Your task to perform on an android device: open chrome privacy settings Image 0: 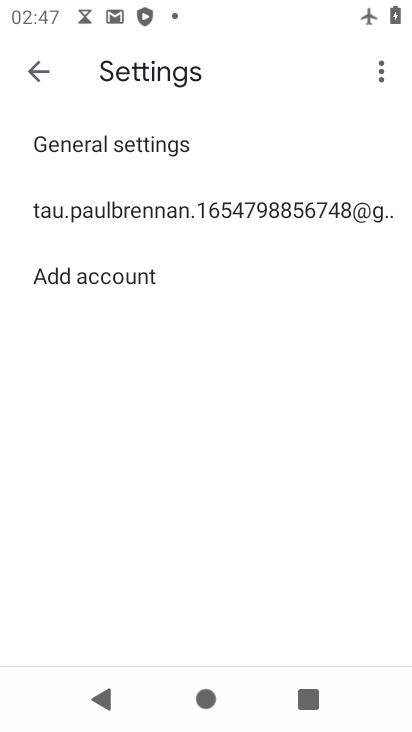
Step 0: press home button
Your task to perform on an android device: open chrome privacy settings Image 1: 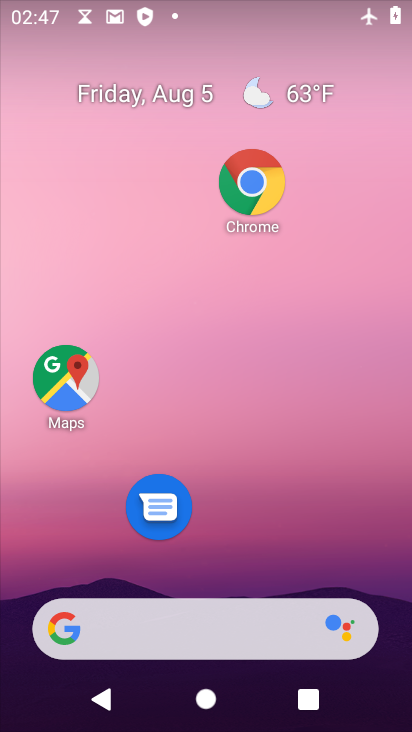
Step 1: drag from (202, 564) to (410, 52)
Your task to perform on an android device: open chrome privacy settings Image 2: 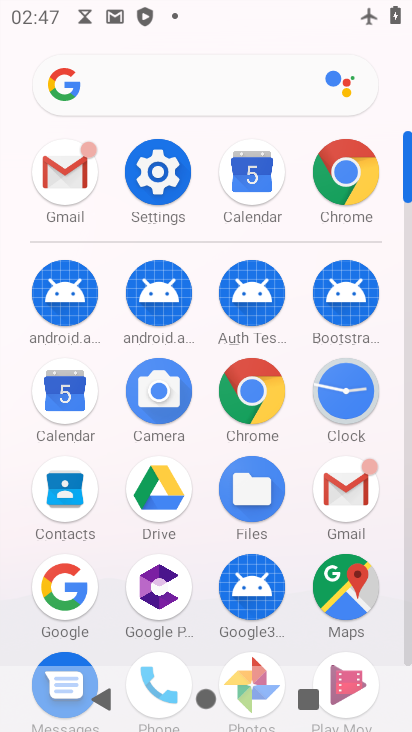
Step 2: click (345, 192)
Your task to perform on an android device: open chrome privacy settings Image 3: 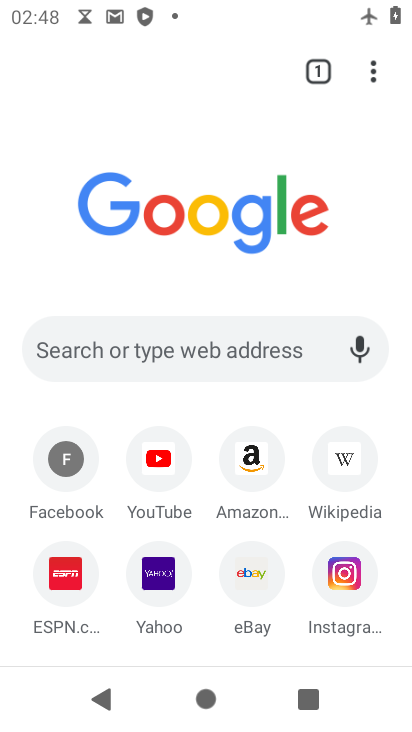
Step 3: click (368, 72)
Your task to perform on an android device: open chrome privacy settings Image 4: 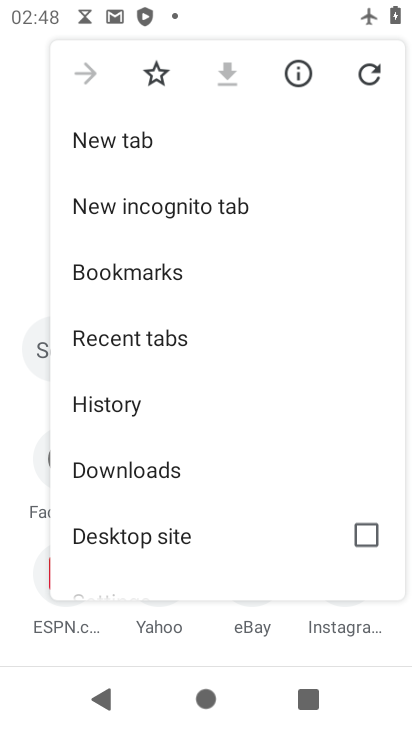
Step 4: drag from (151, 493) to (163, 273)
Your task to perform on an android device: open chrome privacy settings Image 5: 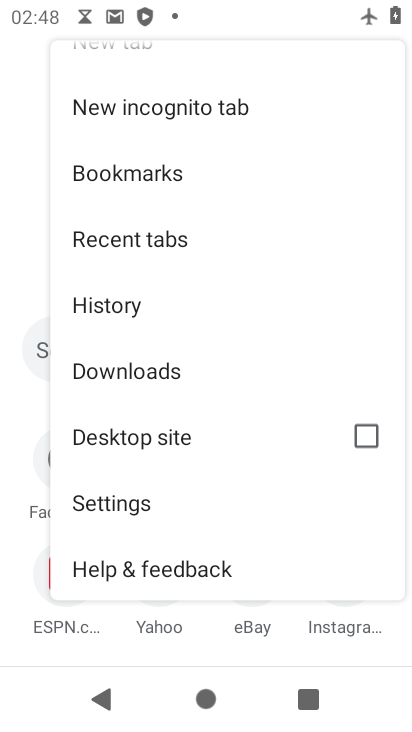
Step 5: click (112, 510)
Your task to perform on an android device: open chrome privacy settings Image 6: 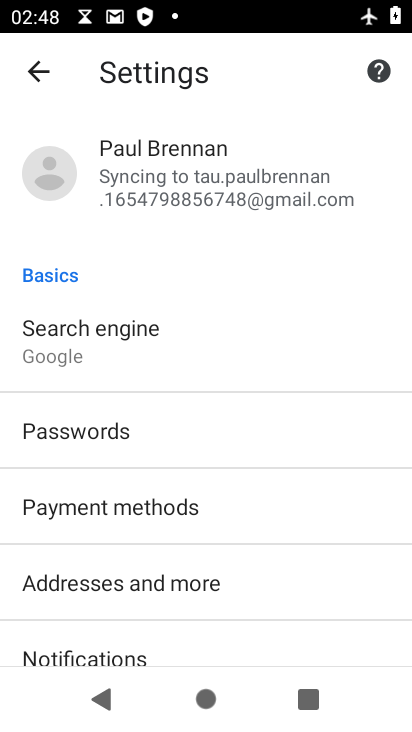
Step 6: drag from (119, 594) to (145, 383)
Your task to perform on an android device: open chrome privacy settings Image 7: 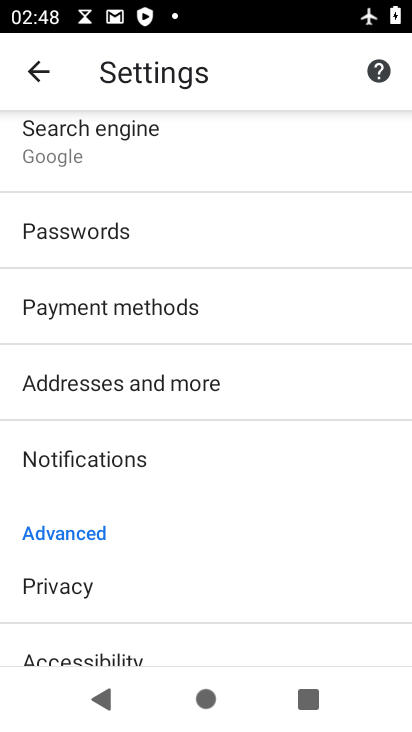
Step 7: click (68, 585)
Your task to perform on an android device: open chrome privacy settings Image 8: 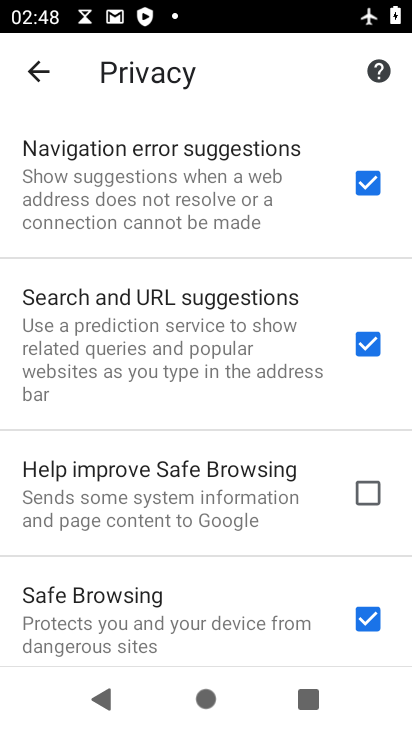
Step 8: task complete